Your task to perform on an android device: change the clock display to show seconds Image 0: 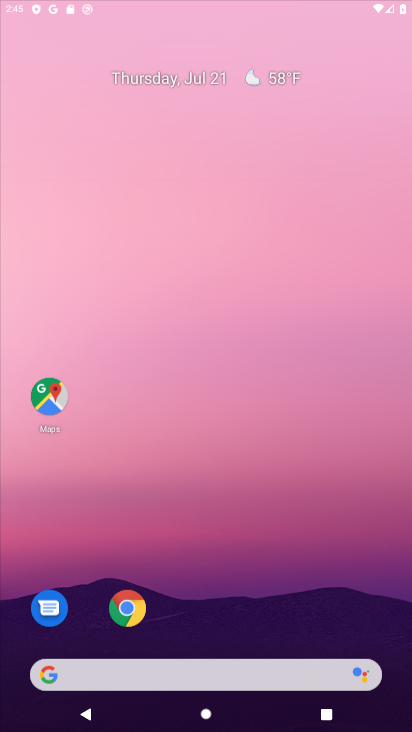
Step 0: press home button
Your task to perform on an android device: change the clock display to show seconds Image 1: 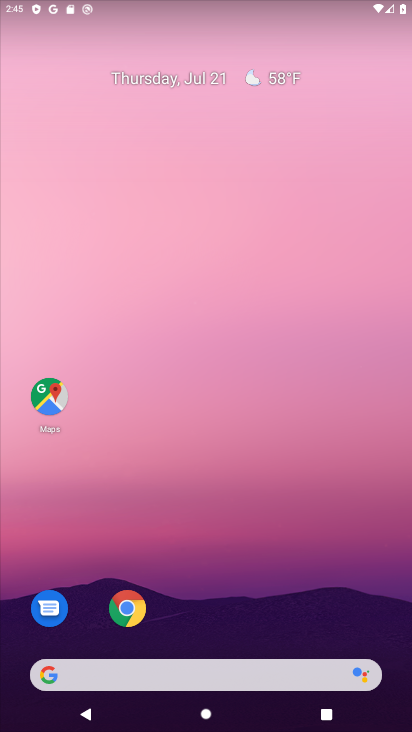
Step 1: drag from (217, 644) to (218, 26)
Your task to perform on an android device: change the clock display to show seconds Image 2: 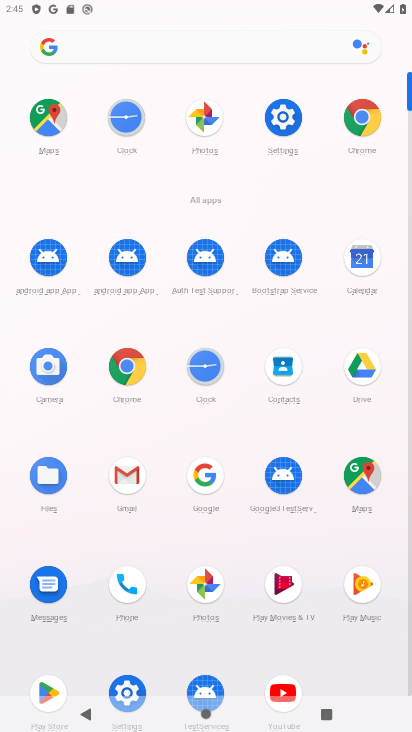
Step 2: click (205, 359)
Your task to perform on an android device: change the clock display to show seconds Image 3: 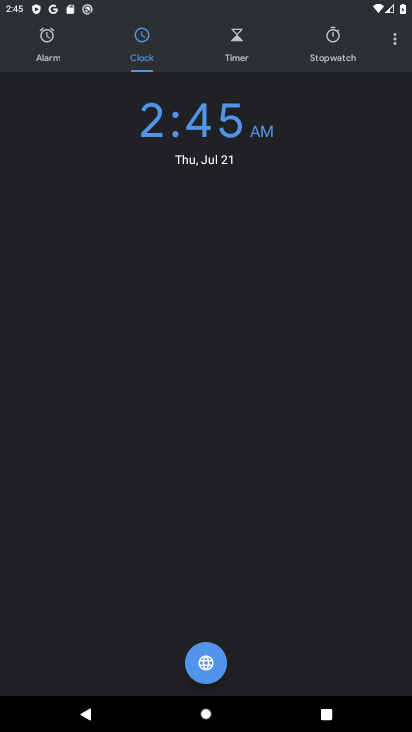
Step 3: click (395, 43)
Your task to perform on an android device: change the clock display to show seconds Image 4: 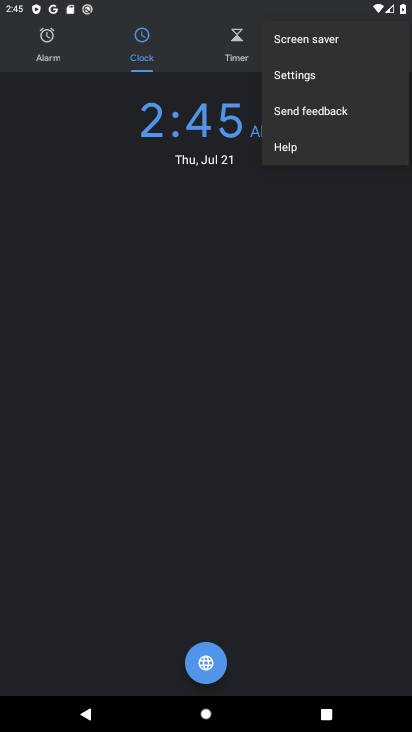
Step 4: click (327, 77)
Your task to perform on an android device: change the clock display to show seconds Image 5: 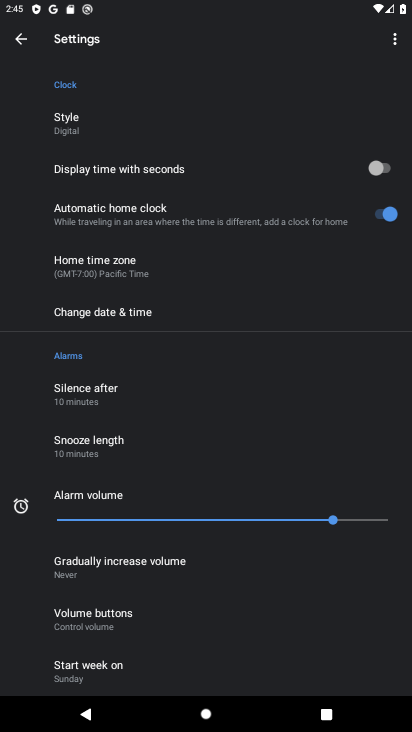
Step 5: click (378, 165)
Your task to perform on an android device: change the clock display to show seconds Image 6: 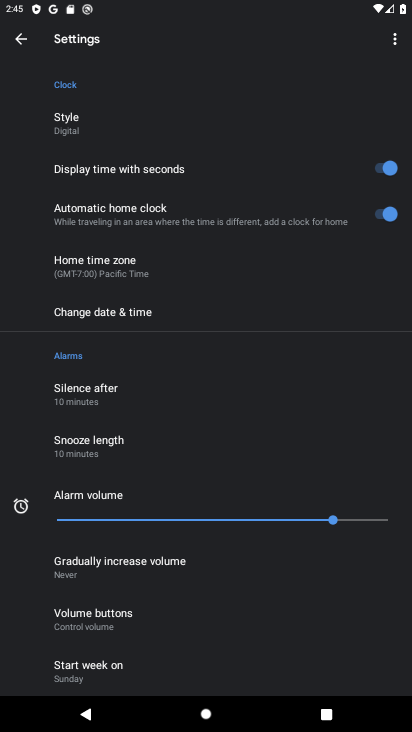
Step 6: task complete